Your task to perform on an android device: Search for "macbook pro 15 inch" on target.com, select the first entry, and add it to the cart. Image 0: 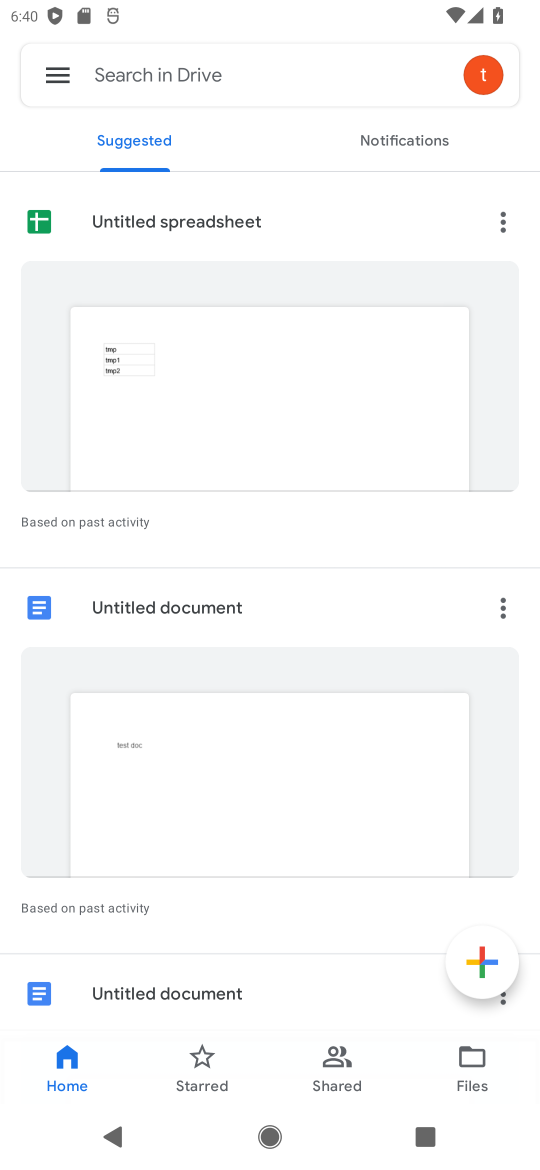
Step 0: press home button
Your task to perform on an android device: Search for "macbook pro 15 inch" on target.com, select the first entry, and add it to the cart. Image 1: 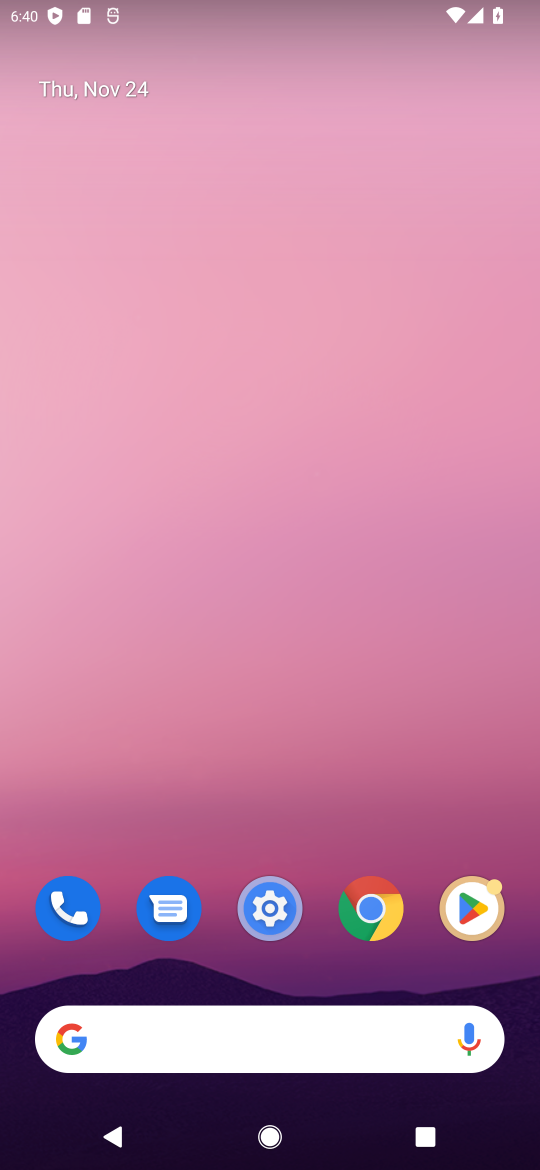
Step 1: click (327, 1043)
Your task to perform on an android device: Search for "macbook pro 15 inch" on target.com, select the first entry, and add it to the cart. Image 2: 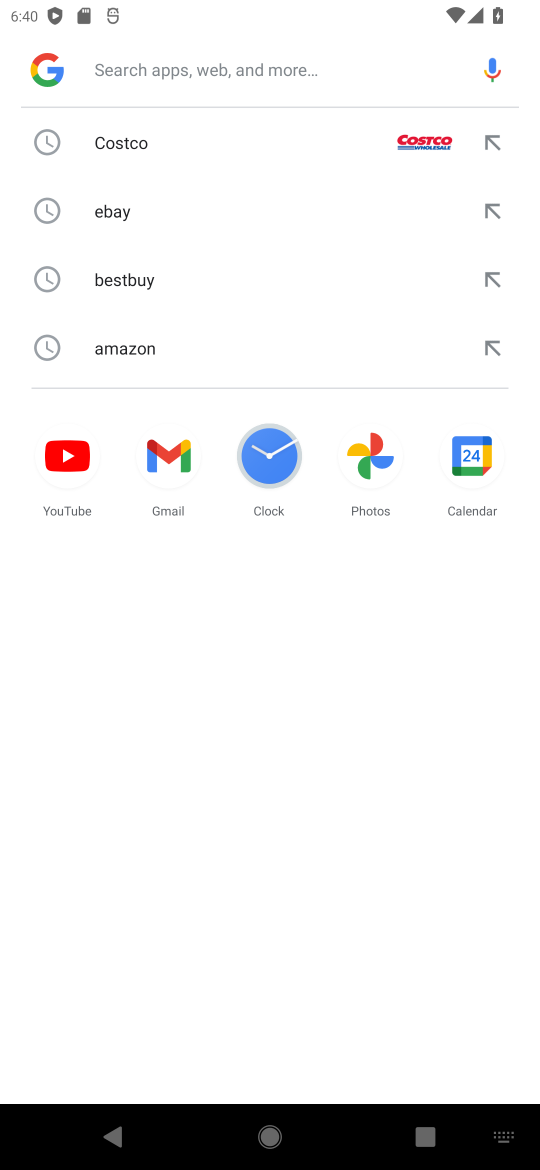
Step 2: type "target"
Your task to perform on an android device: Search for "macbook pro 15 inch" on target.com, select the first entry, and add it to the cart. Image 3: 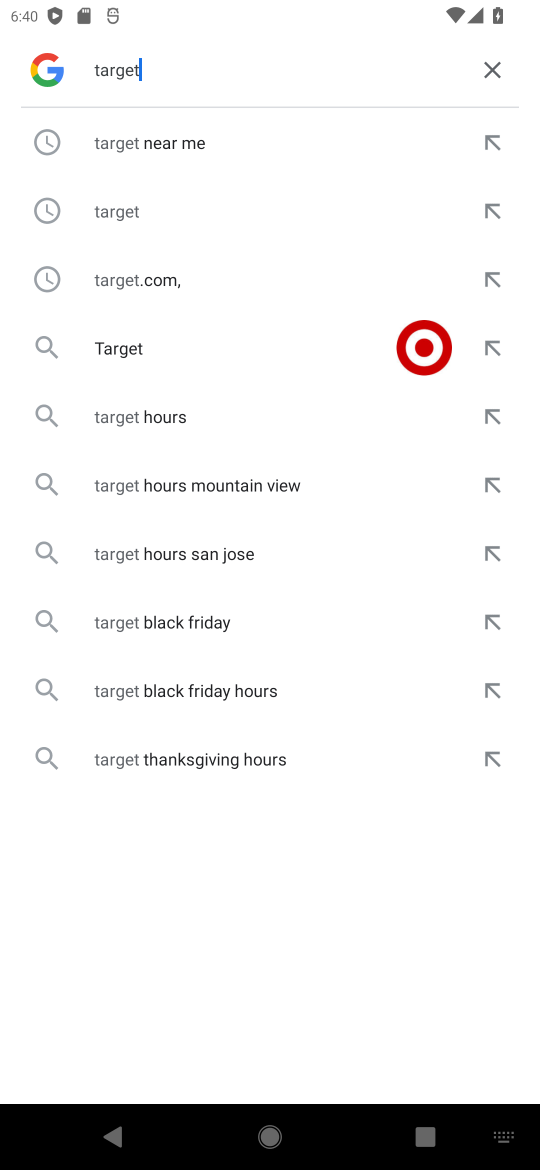
Step 3: click (227, 361)
Your task to perform on an android device: Search for "macbook pro 15 inch" on target.com, select the first entry, and add it to the cart. Image 4: 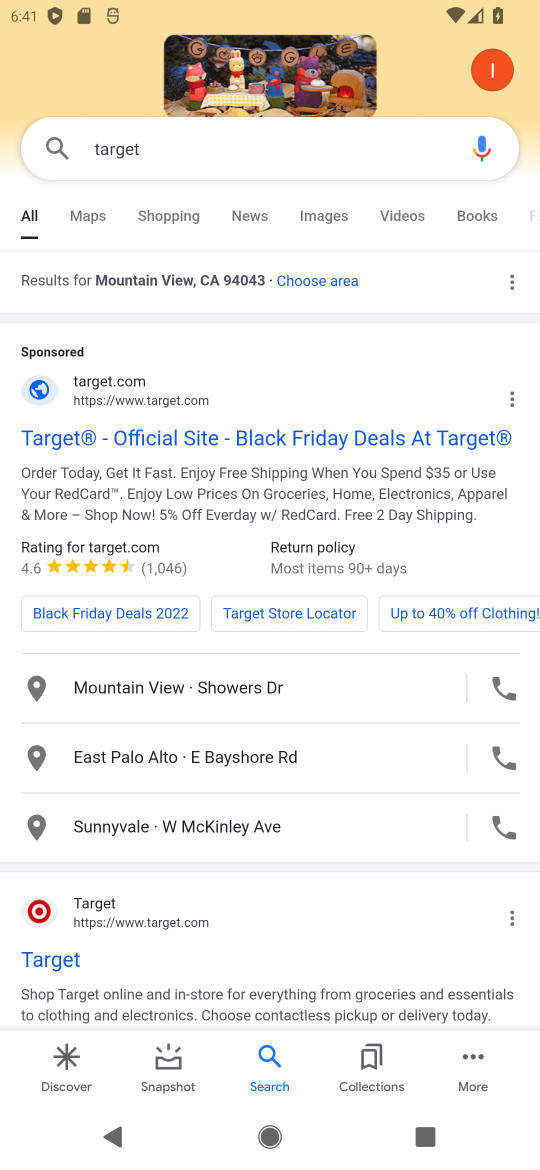
Step 4: click (118, 420)
Your task to perform on an android device: Search for "macbook pro 15 inch" on target.com, select the first entry, and add it to the cart. Image 5: 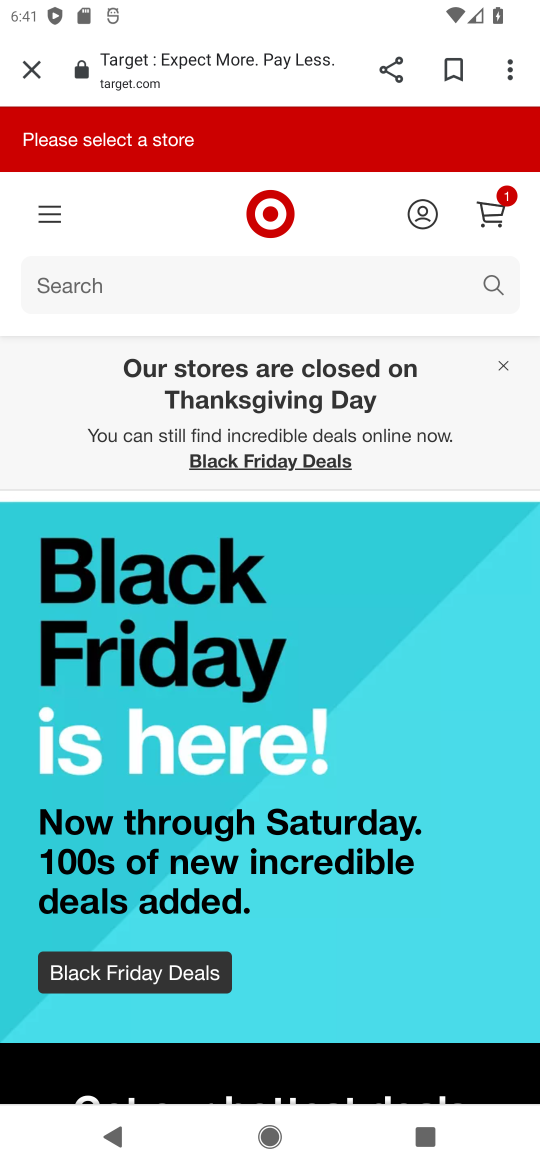
Step 5: click (188, 306)
Your task to perform on an android device: Search for "macbook pro 15 inch" on target.com, select the first entry, and add it to the cart. Image 6: 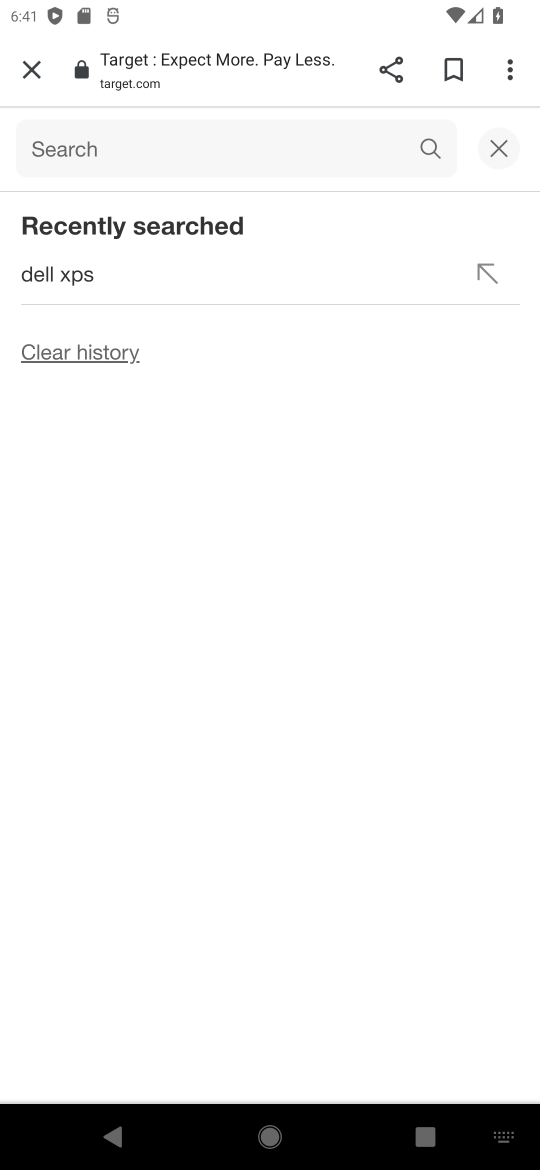
Step 6: type "macbook pro 15"
Your task to perform on an android device: Search for "macbook pro 15 inch" on target.com, select the first entry, and add it to the cart. Image 7: 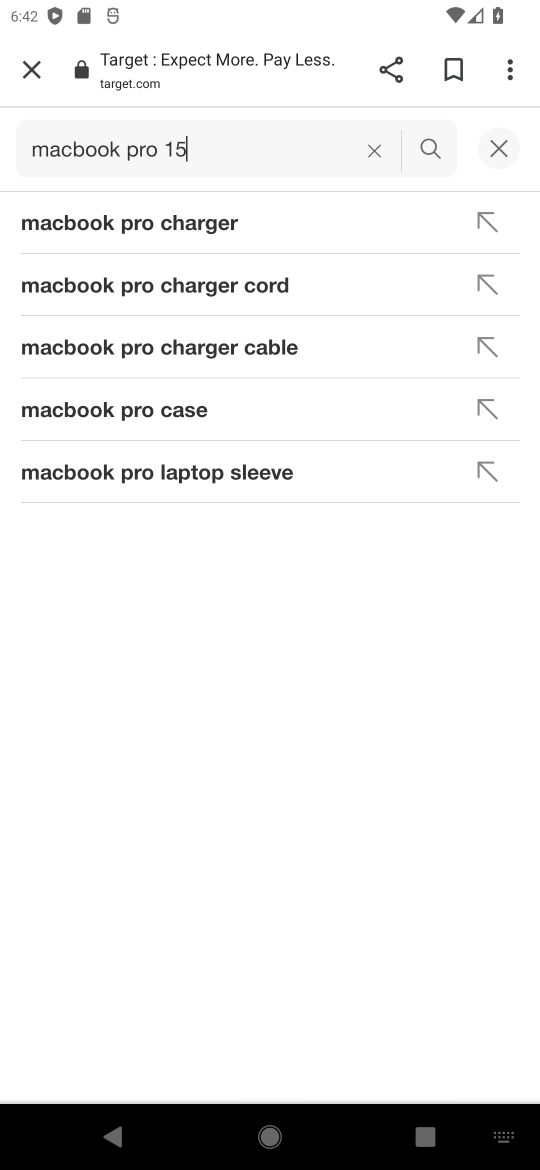
Step 7: click (428, 150)
Your task to perform on an android device: Search for "macbook pro 15 inch" on target.com, select the first entry, and add it to the cart. Image 8: 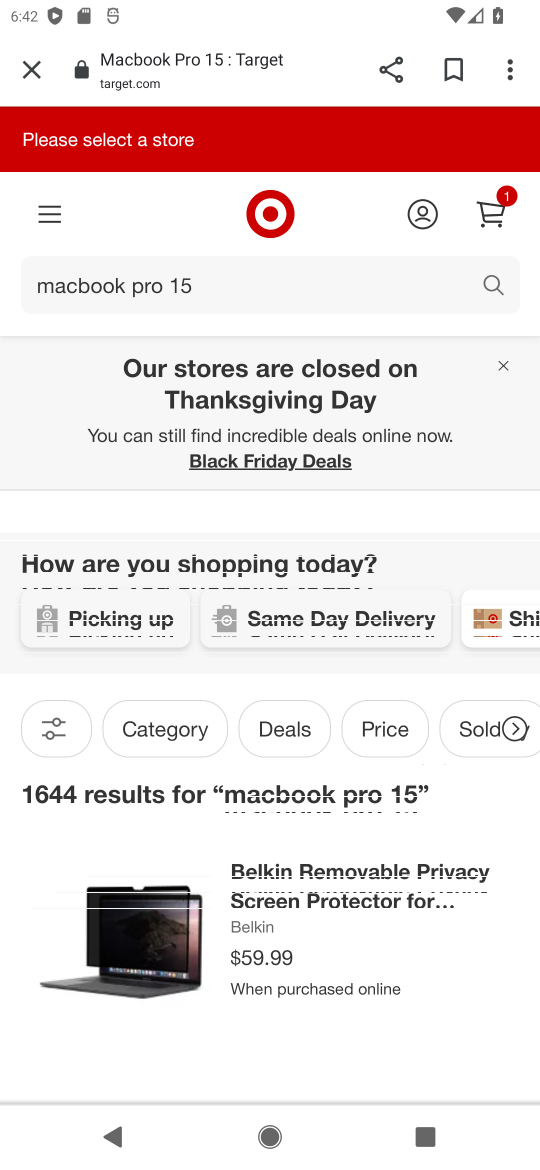
Step 8: task complete